Your task to perform on an android device: Open Amazon Image 0: 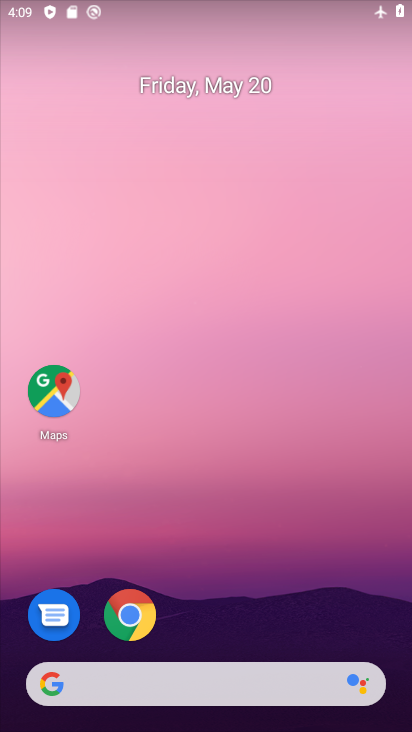
Step 0: drag from (194, 558) to (221, 217)
Your task to perform on an android device: Open Amazon Image 1: 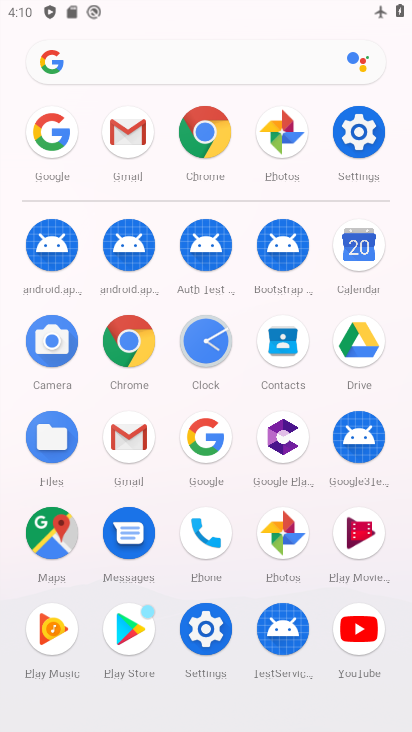
Step 1: click (212, 152)
Your task to perform on an android device: Open Amazon Image 2: 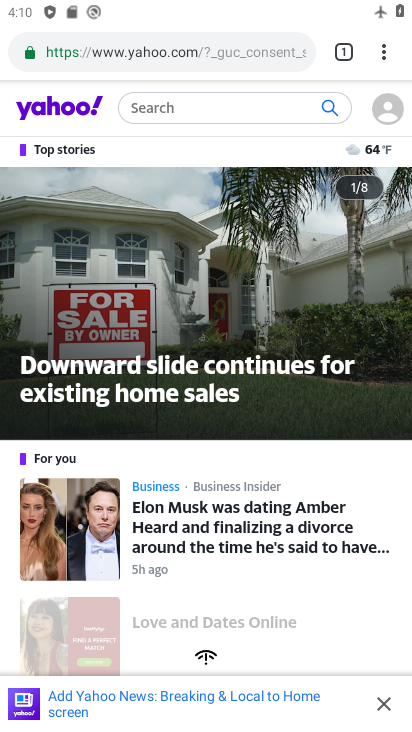
Step 2: click (194, 52)
Your task to perform on an android device: Open Amazon Image 3: 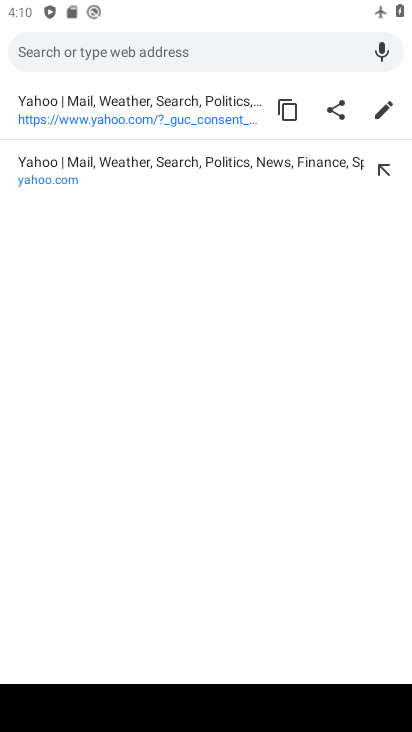
Step 3: type "amazon"
Your task to perform on an android device: Open Amazon Image 4: 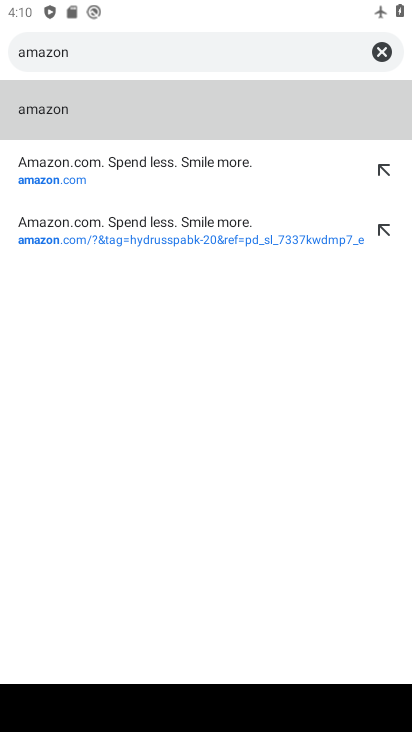
Step 4: click (136, 185)
Your task to perform on an android device: Open Amazon Image 5: 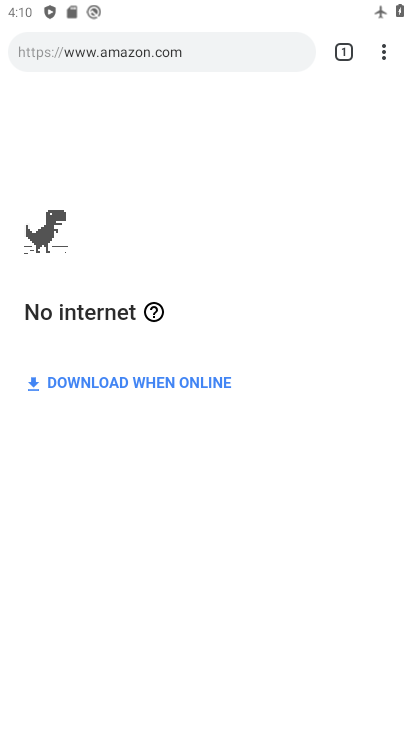
Step 5: task complete